Your task to perform on an android device: turn pop-ups on in chrome Image 0: 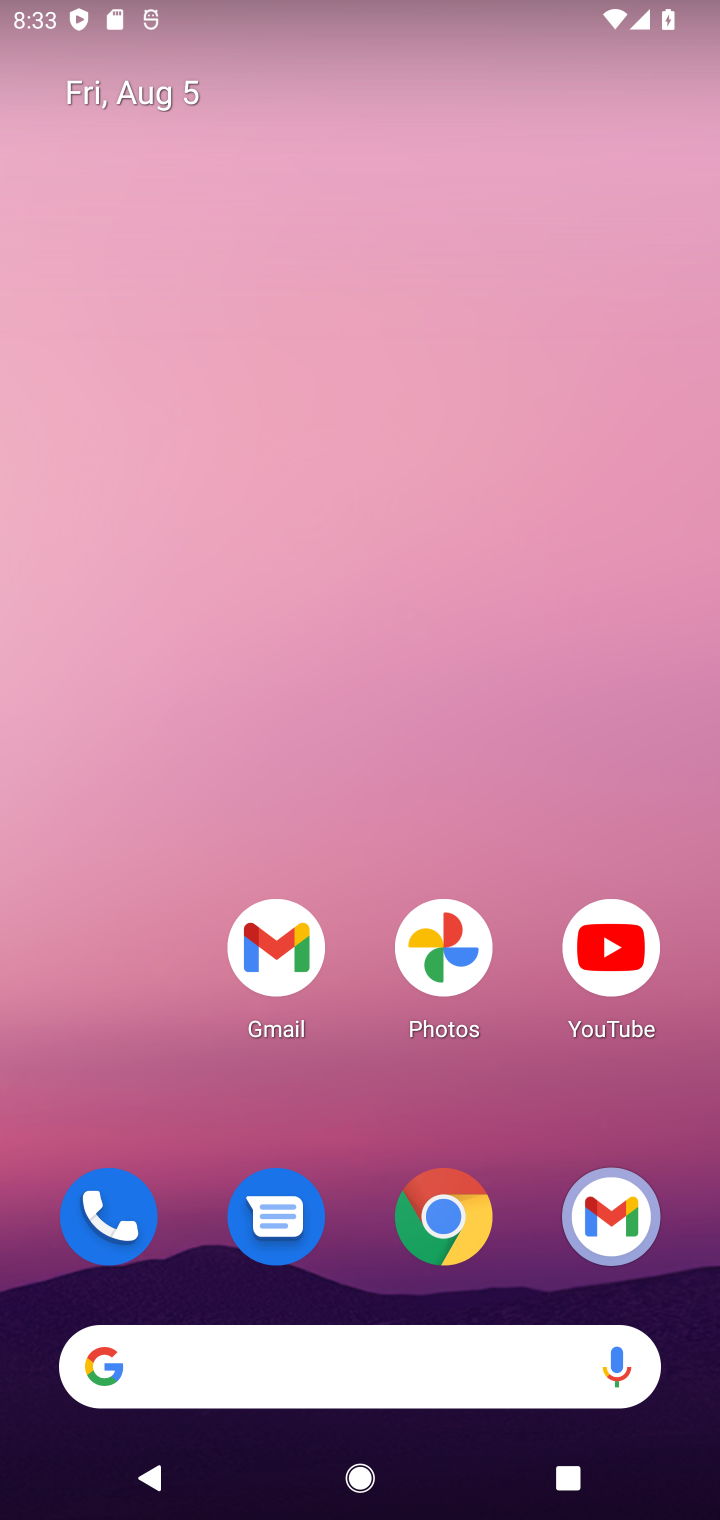
Step 0: click (457, 722)
Your task to perform on an android device: turn pop-ups on in chrome Image 1: 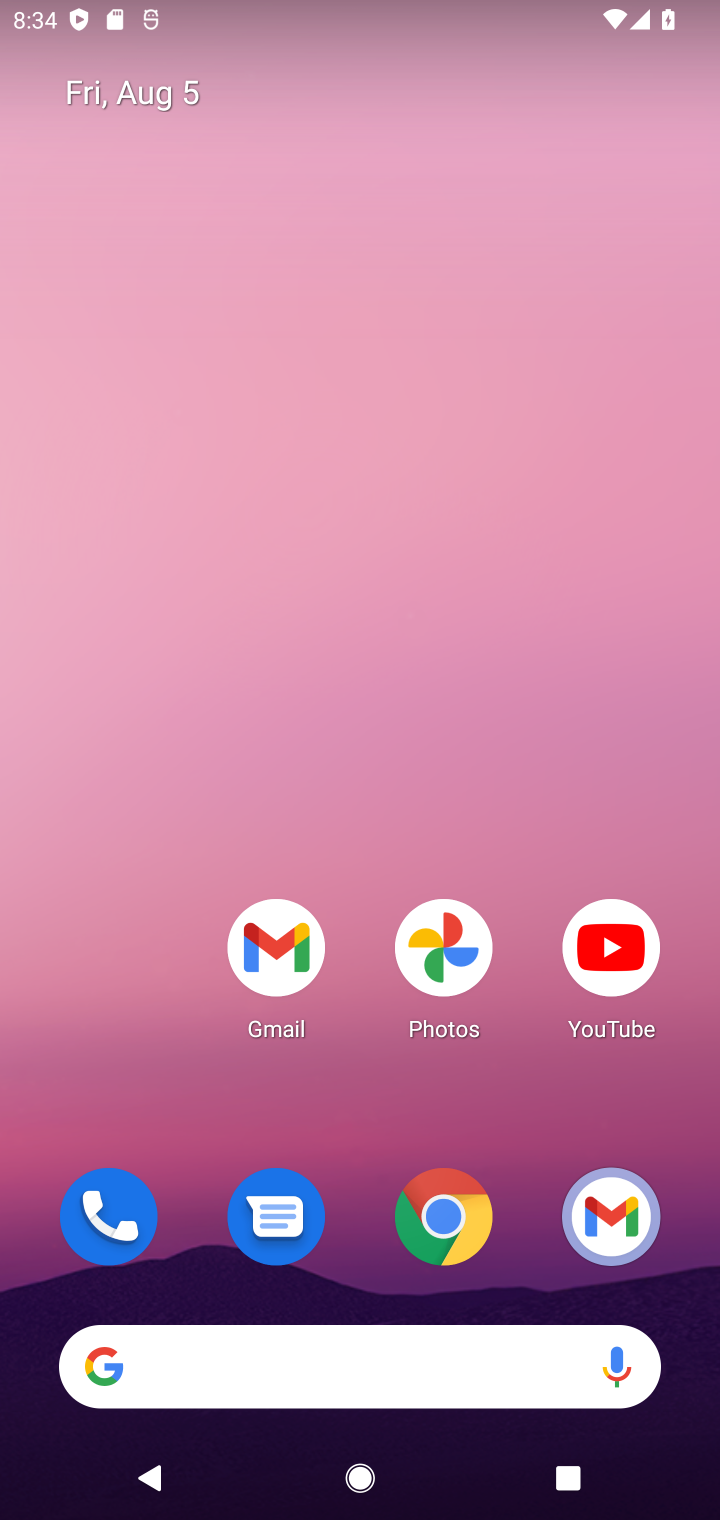
Step 1: click (437, 1208)
Your task to perform on an android device: turn pop-ups on in chrome Image 2: 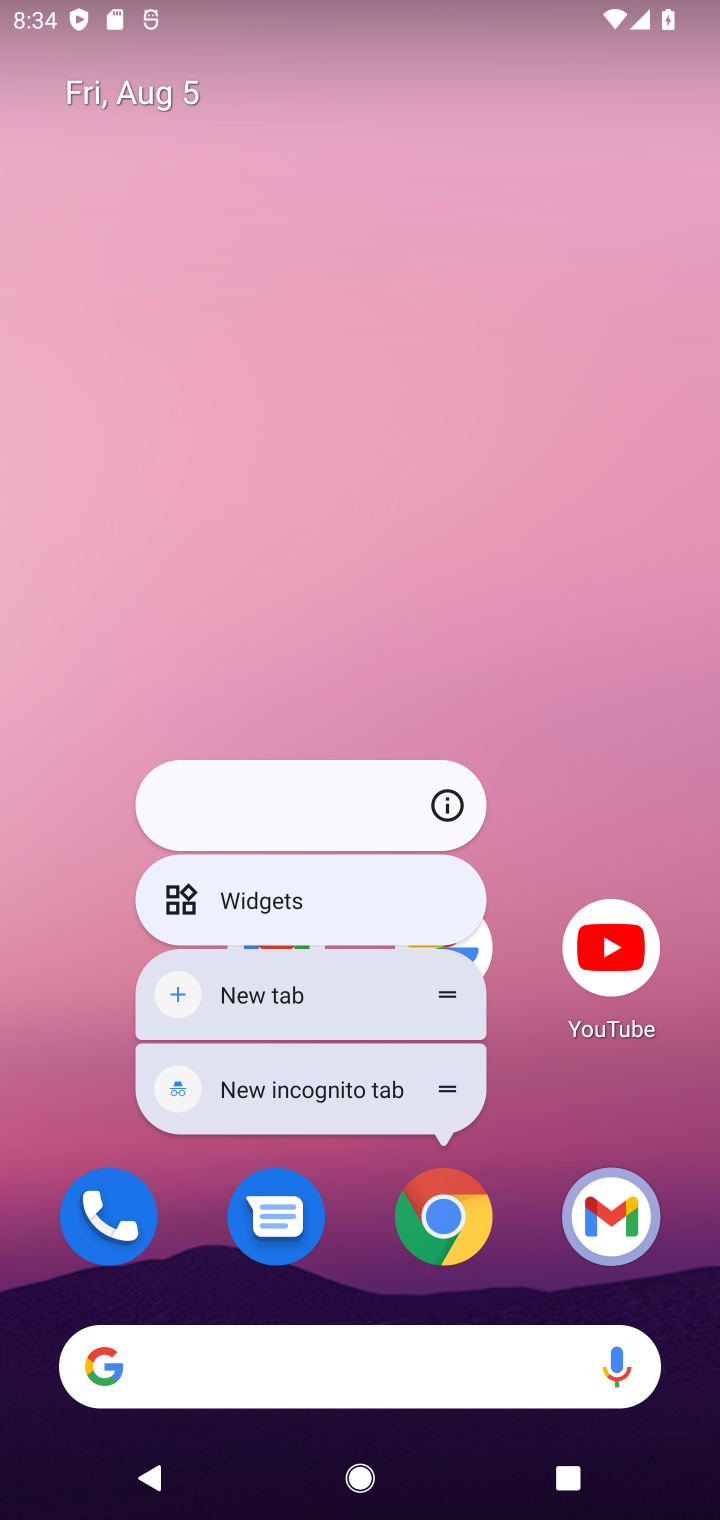
Step 2: click (447, 818)
Your task to perform on an android device: turn pop-ups on in chrome Image 3: 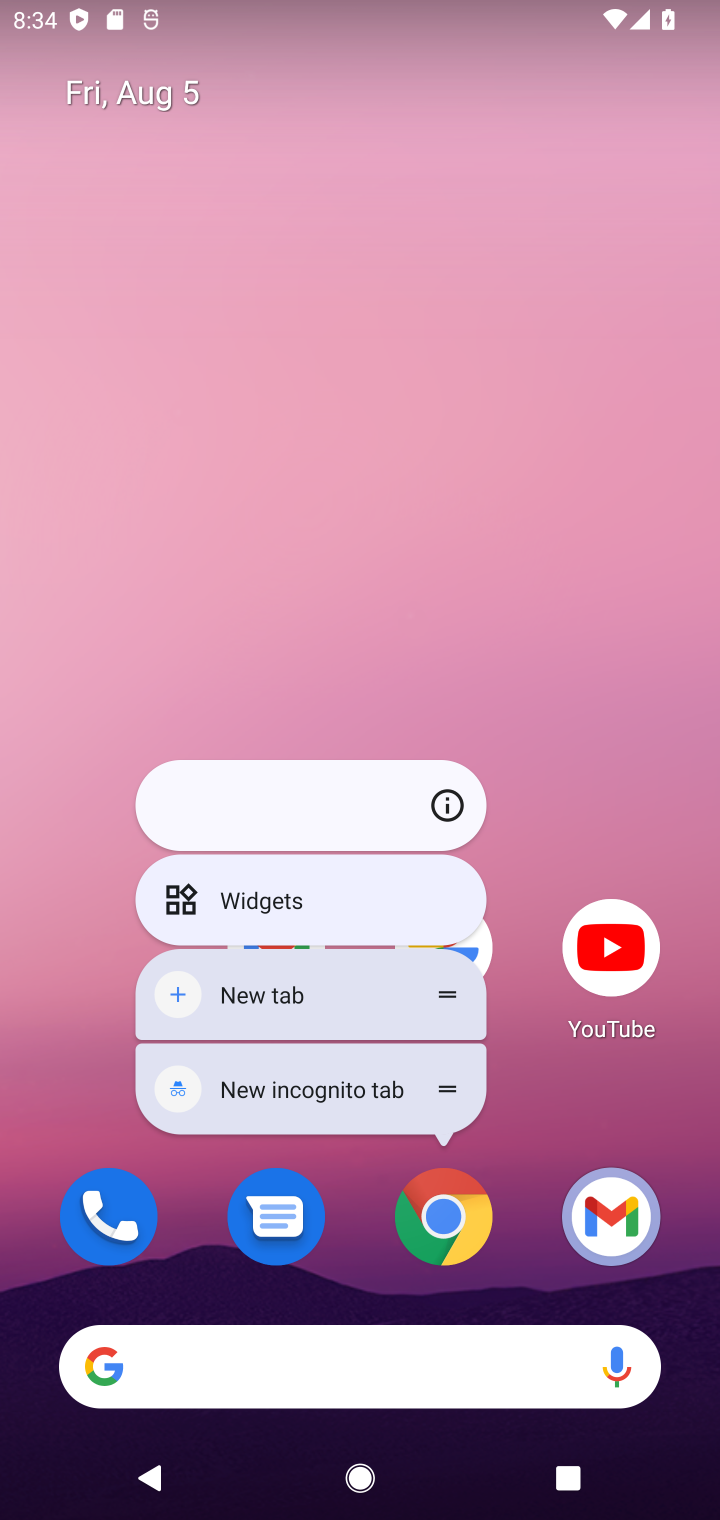
Step 3: click (455, 790)
Your task to perform on an android device: turn pop-ups on in chrome Image 4: 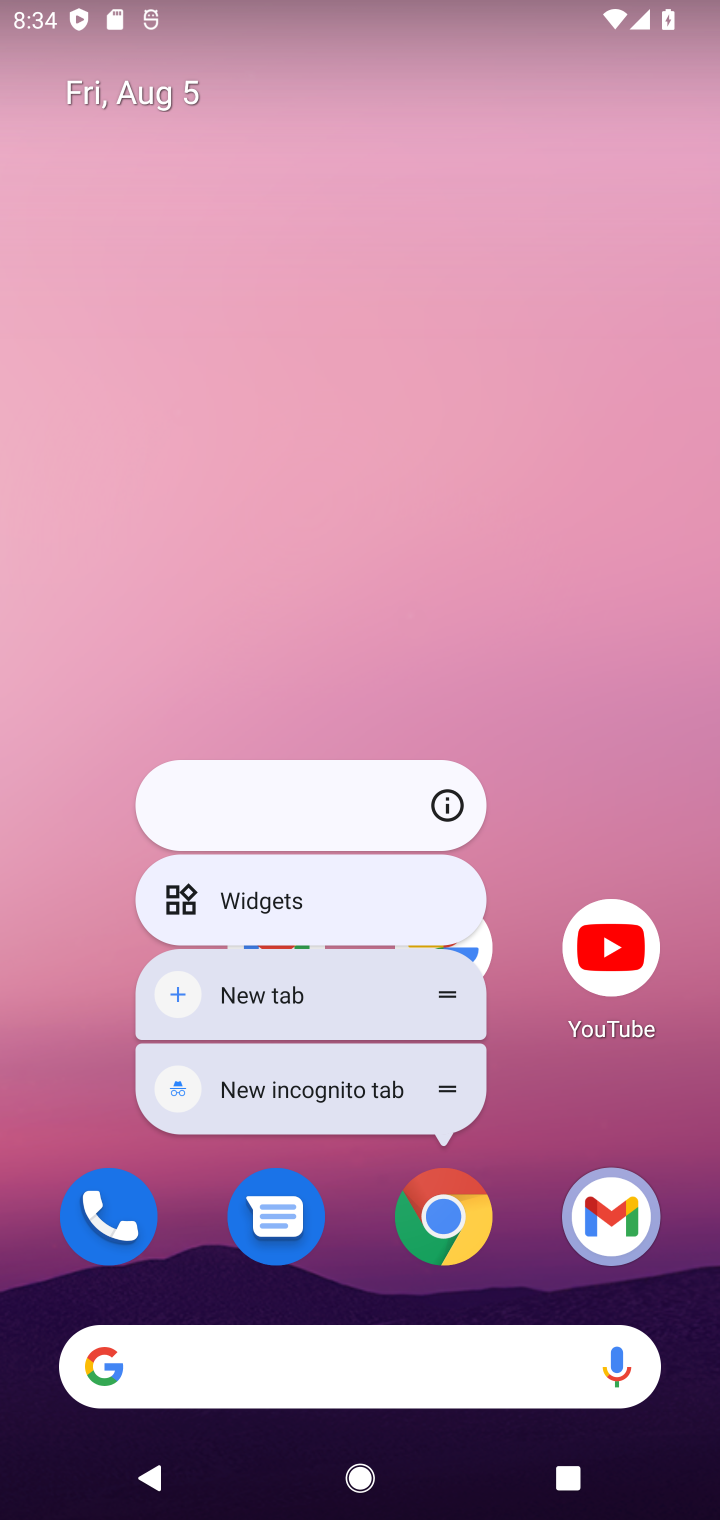
Step 4: click (424, 803)
Your task to perform on an android device: turn pop-ups on in chrome Image 5: 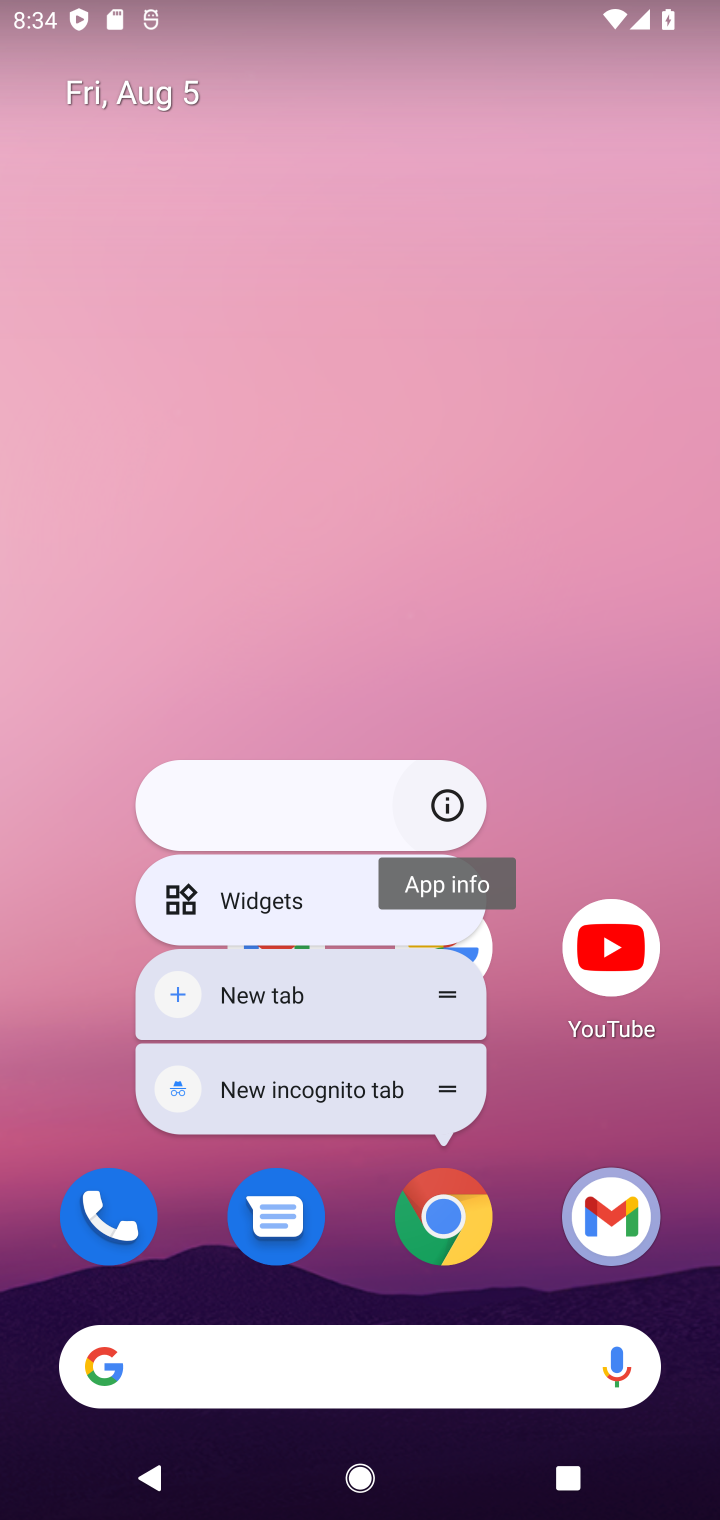
Step 5: click (431, 805)
Your task to perform on an android device: turn pop-ups on in chrome Image 6: 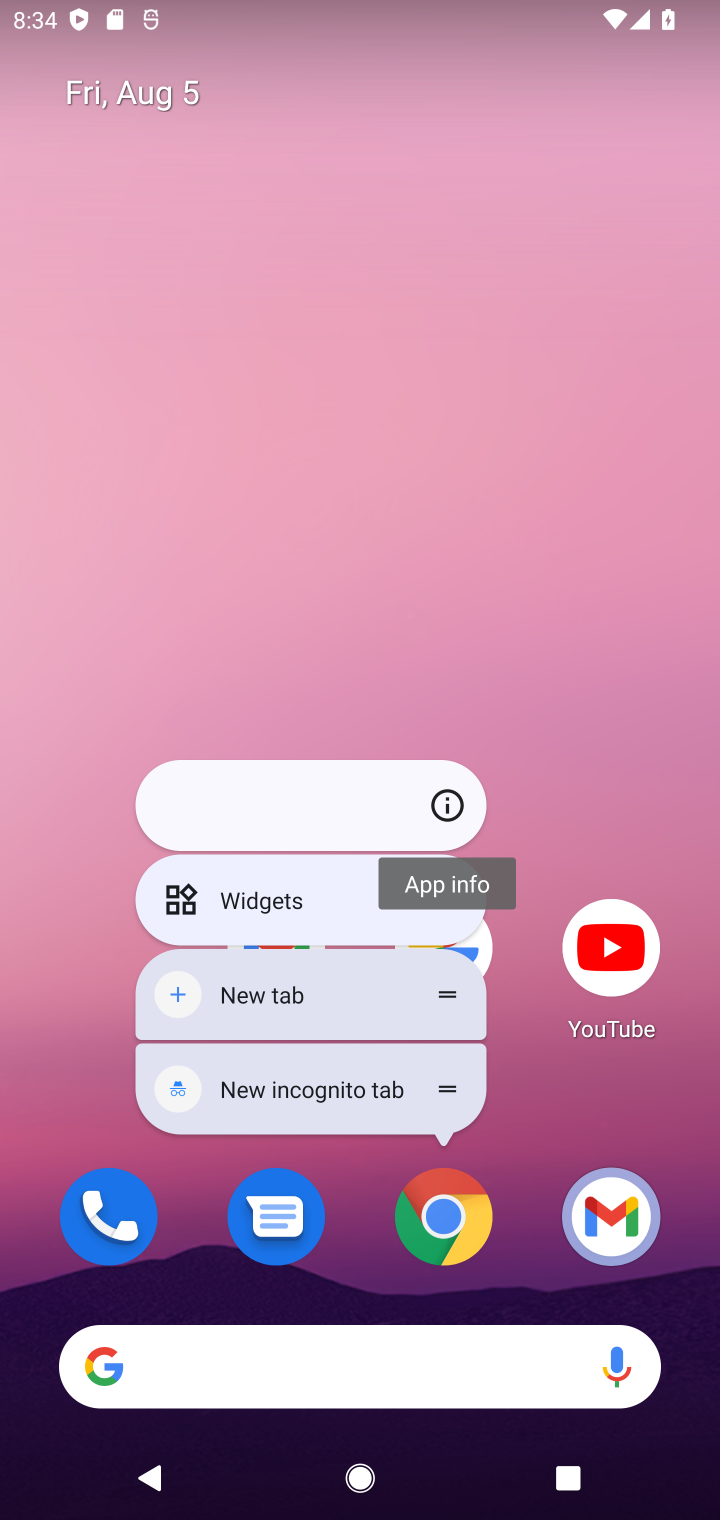
Step 6: click (431, 805)
Your task to perform on an android device: turn pop-ups on in chrome Image 7: 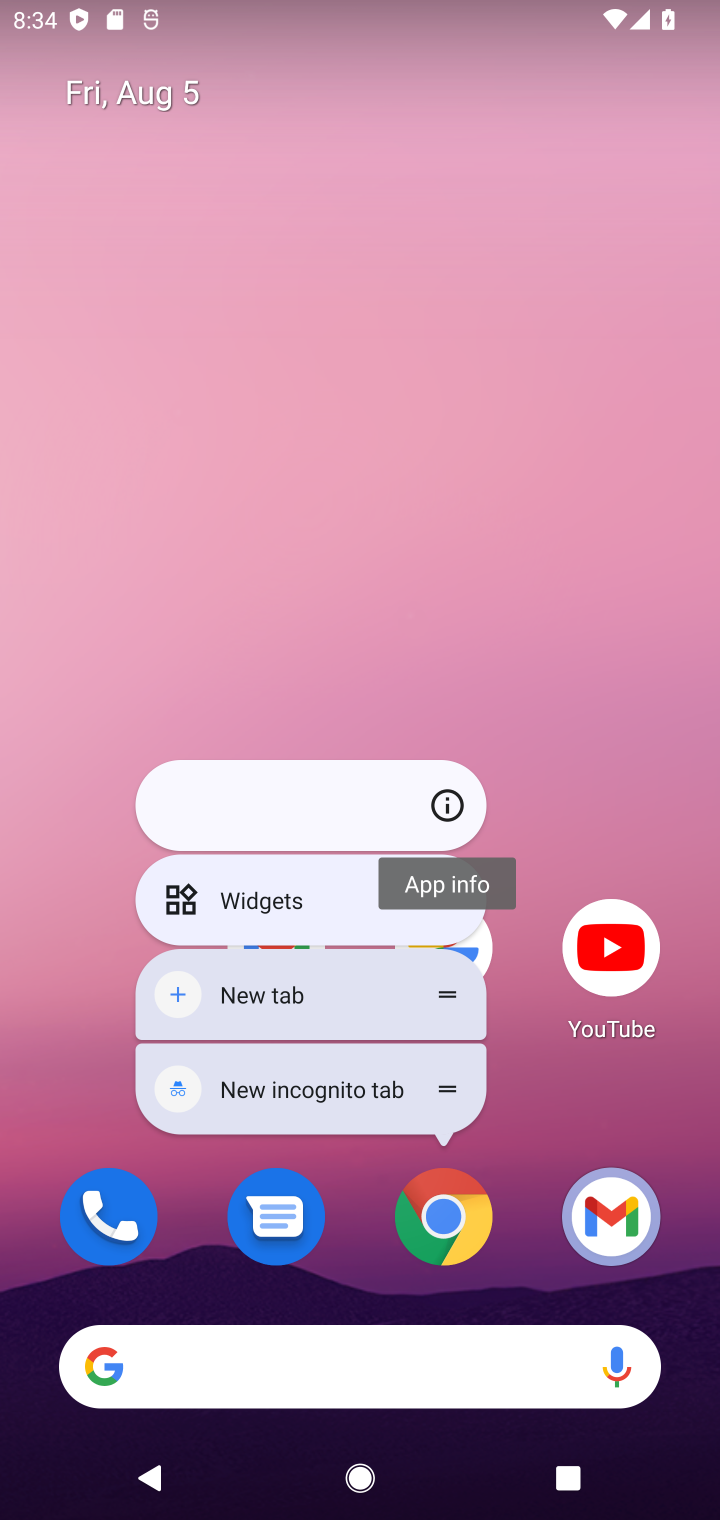
Step 7: click (433, 808)
Your task to perform on an android device: turn pop-ups on in chrome Image 8: 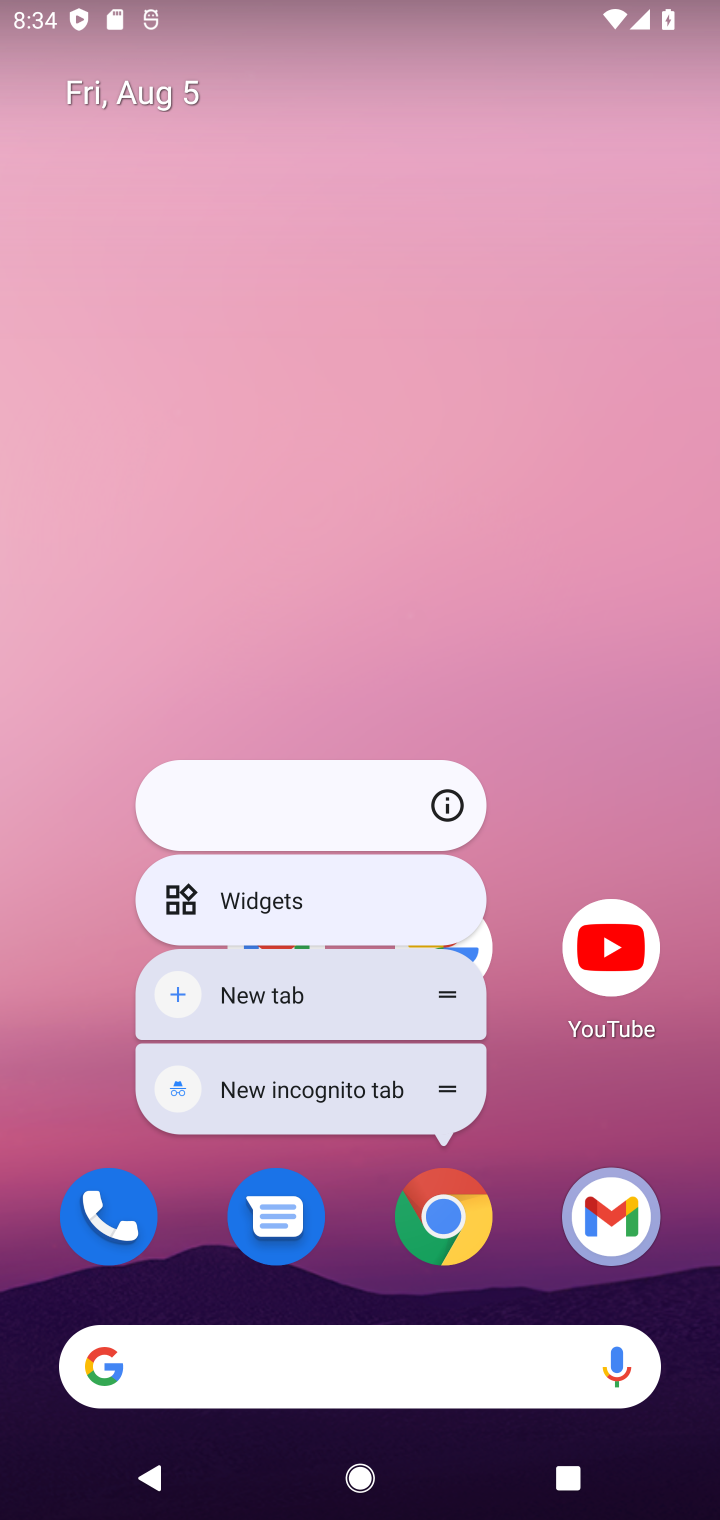
Step 8: click (433, 808)
Your task to perform on an android device: turn pop-ups on in chrome Image 9: 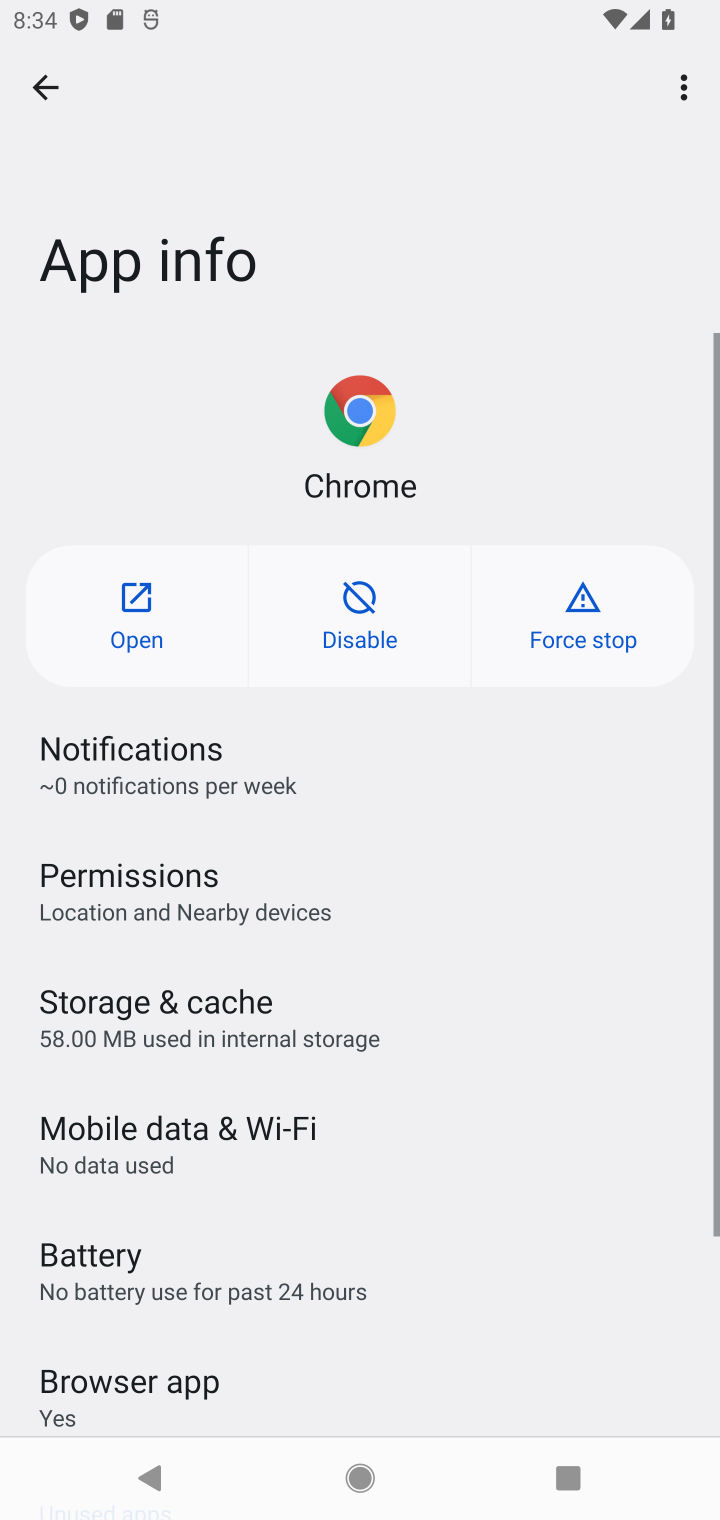
Step 9: click (121, 598)
Your task to perform on an android device: turn pop-ups on in chrome Image 10: 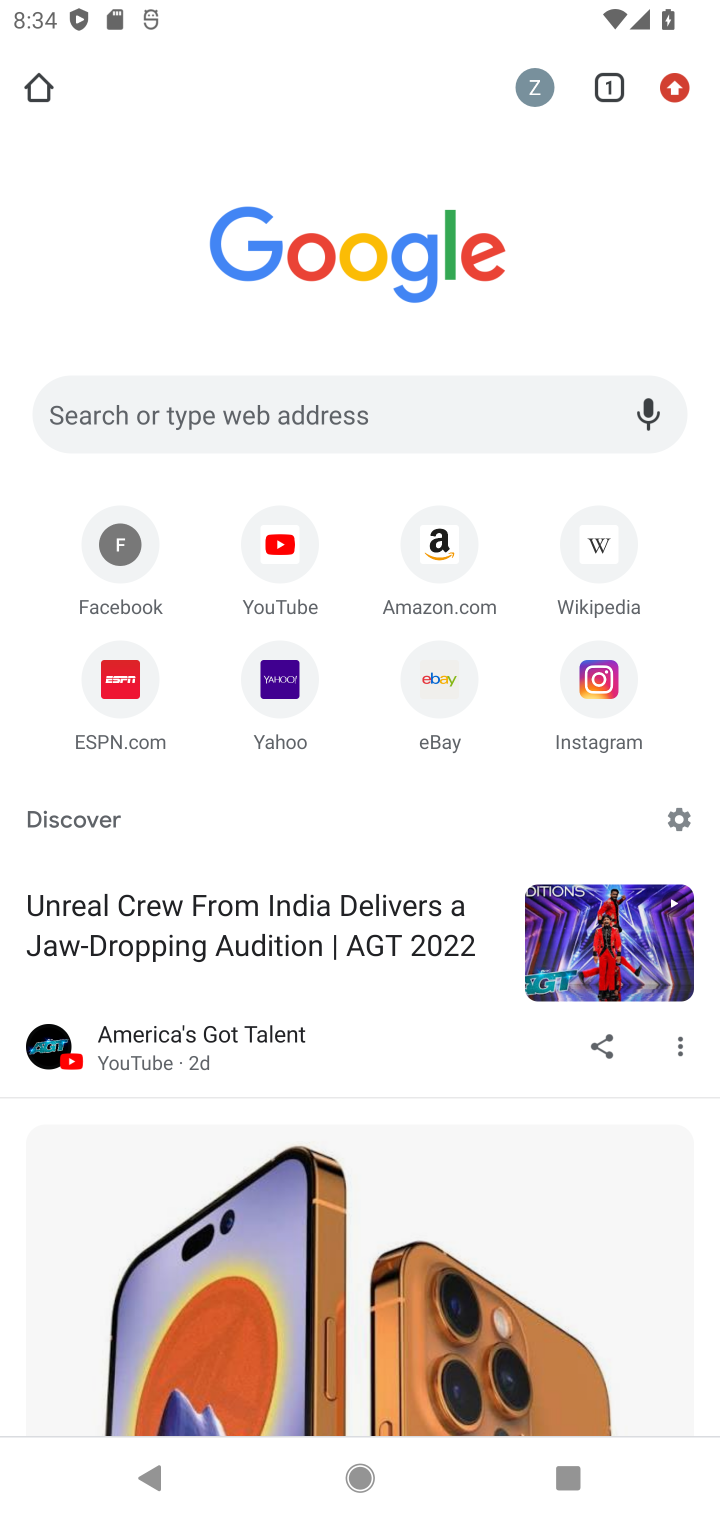
Step 10: drag from (349, 505) to (369, 254)
Your task to perform on an android device: turn pop-ups on in chrome Image 11: 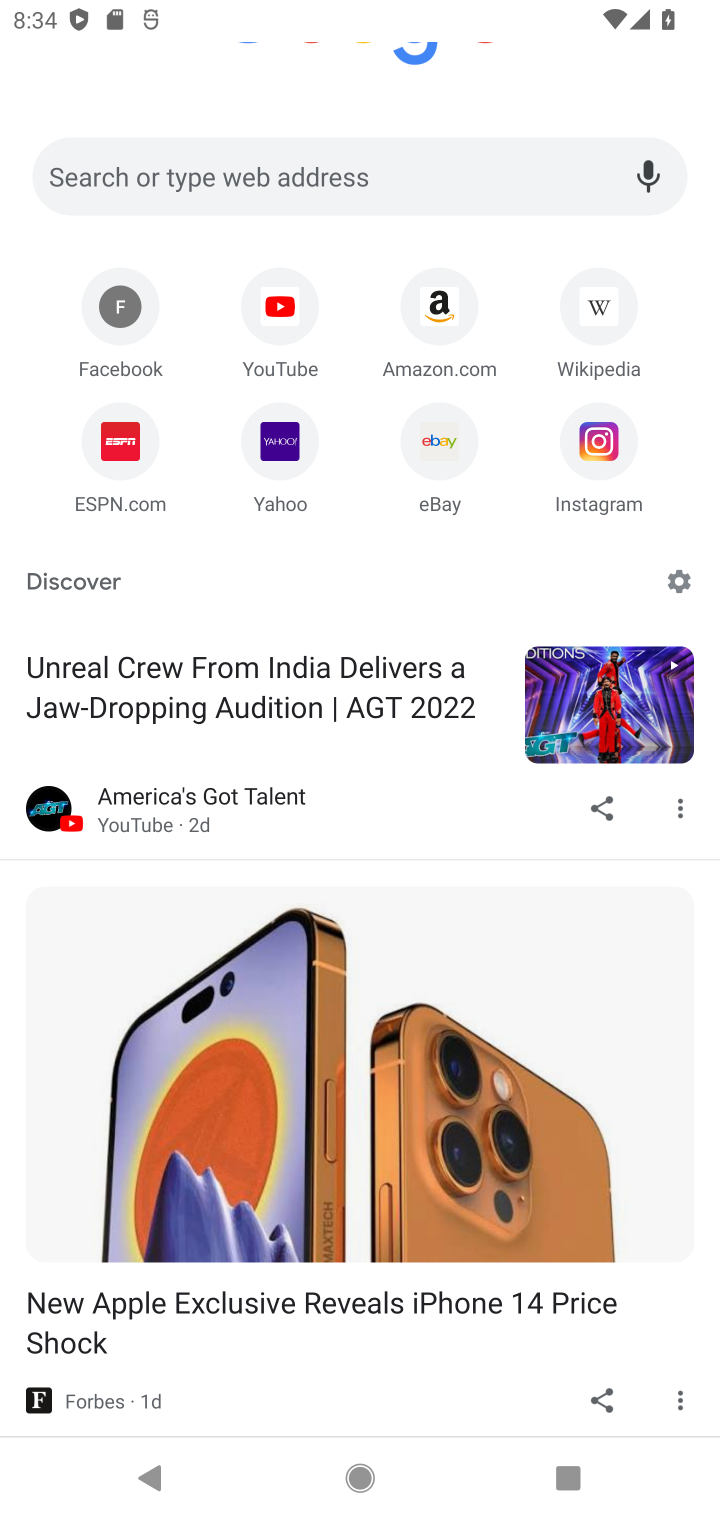
Step 11: drag from (354, 275) to (308, 811)
Your task to perform on an android device: turn pop-ups on in chrome Image 12: 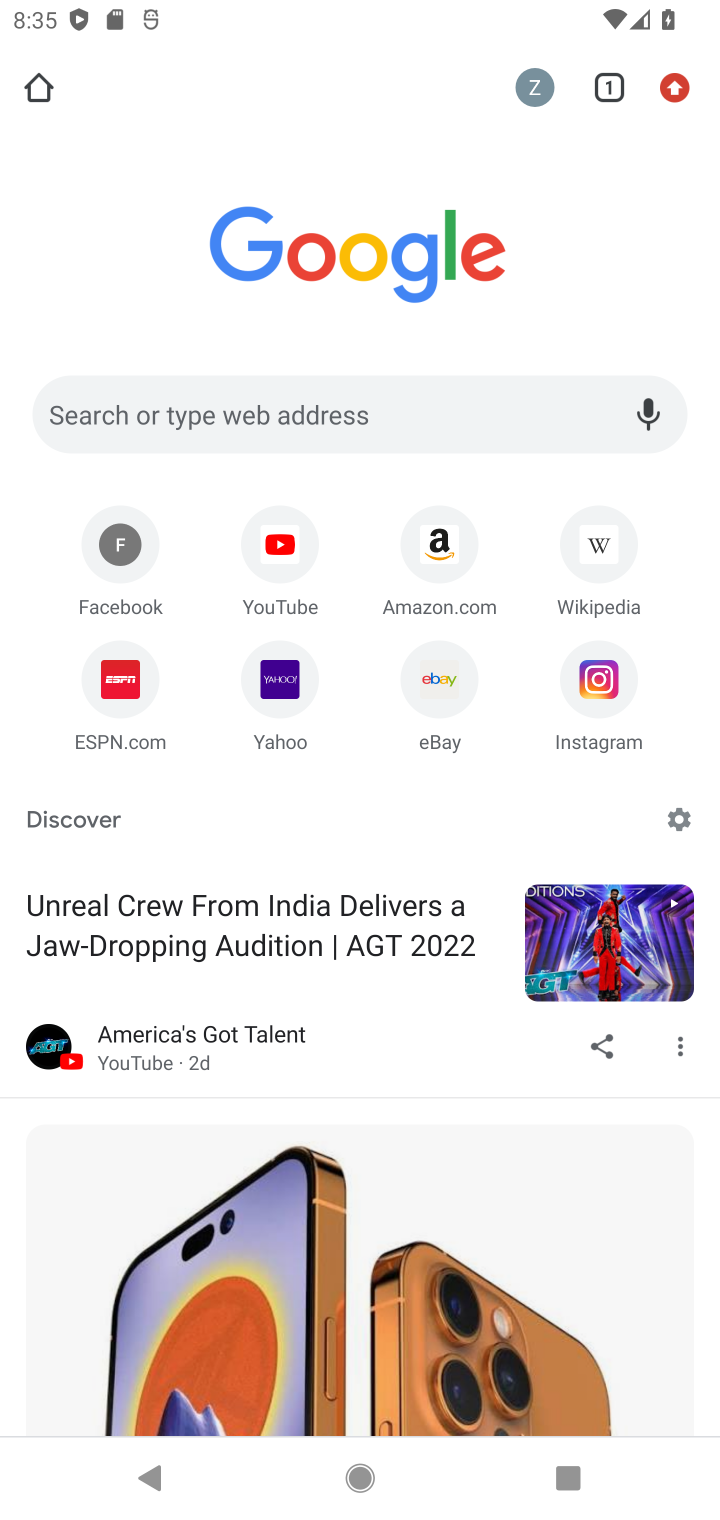
Step 12: drag from (680, 84) to (444, 872)
Your task to perform on an android device: turn pop-ups on in chrome Image 13: 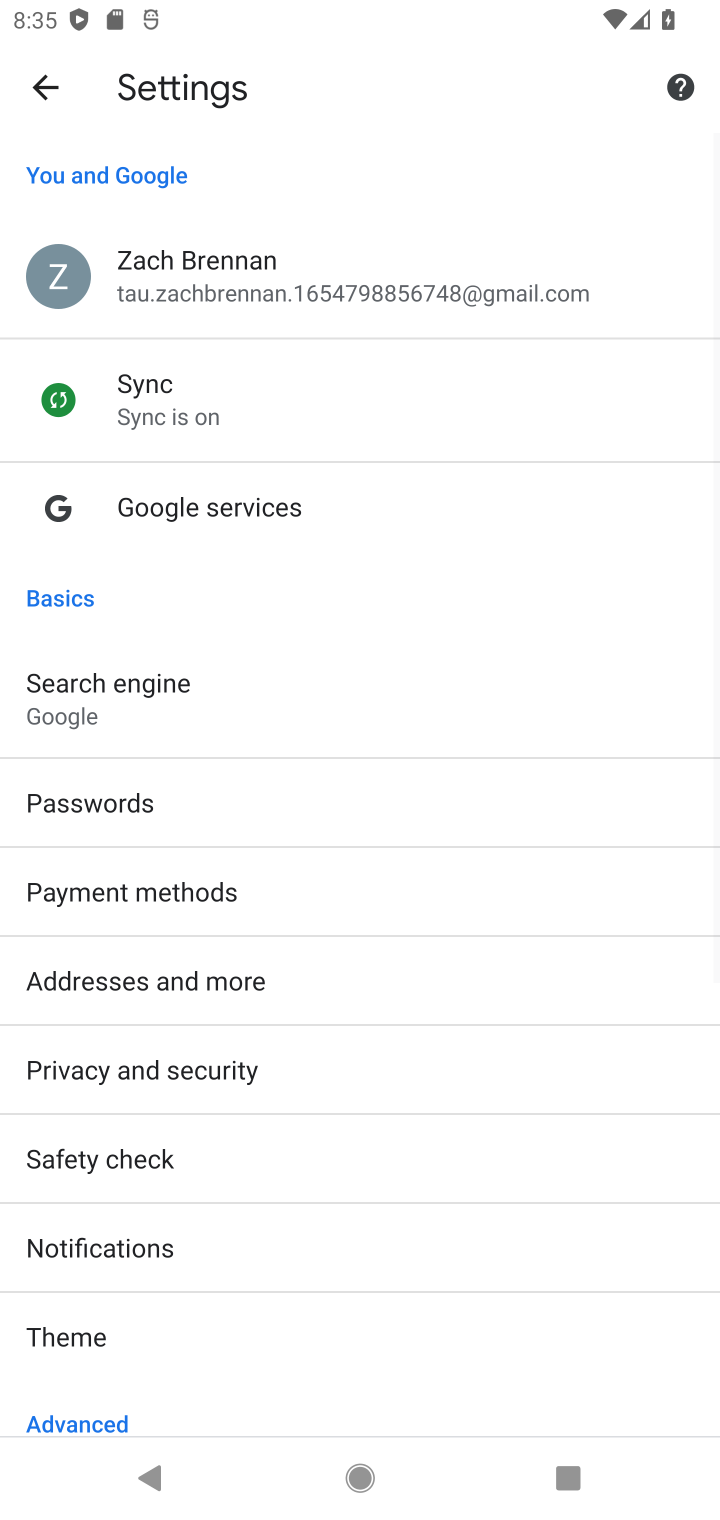
Step 13: drag from (245, 1340) to (294, 476)
Your task to perform on an android device: turn pop-ups on in chrome Image 14: 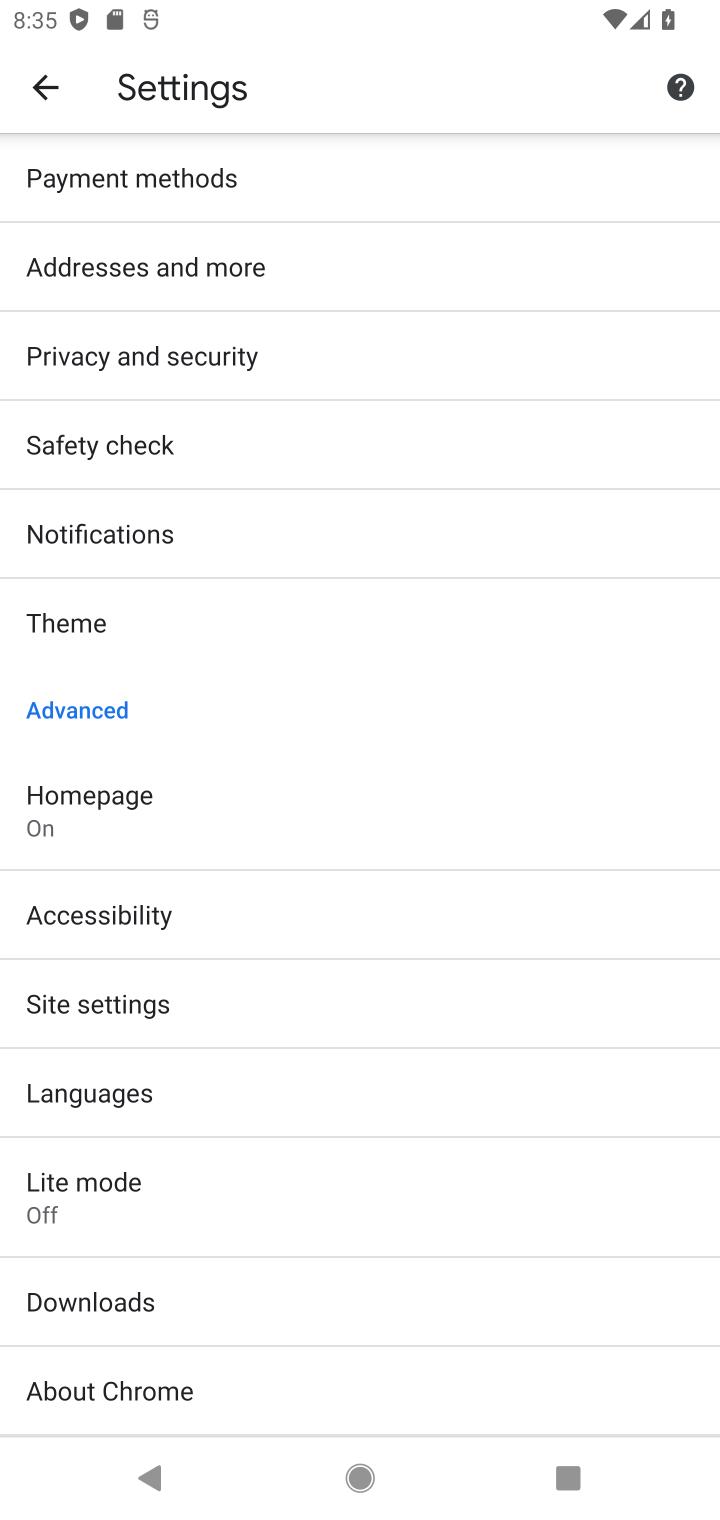
Step 14: click (205, 982)
Your task to perform on an android device: turn pop-ups on in chrome Image 15: 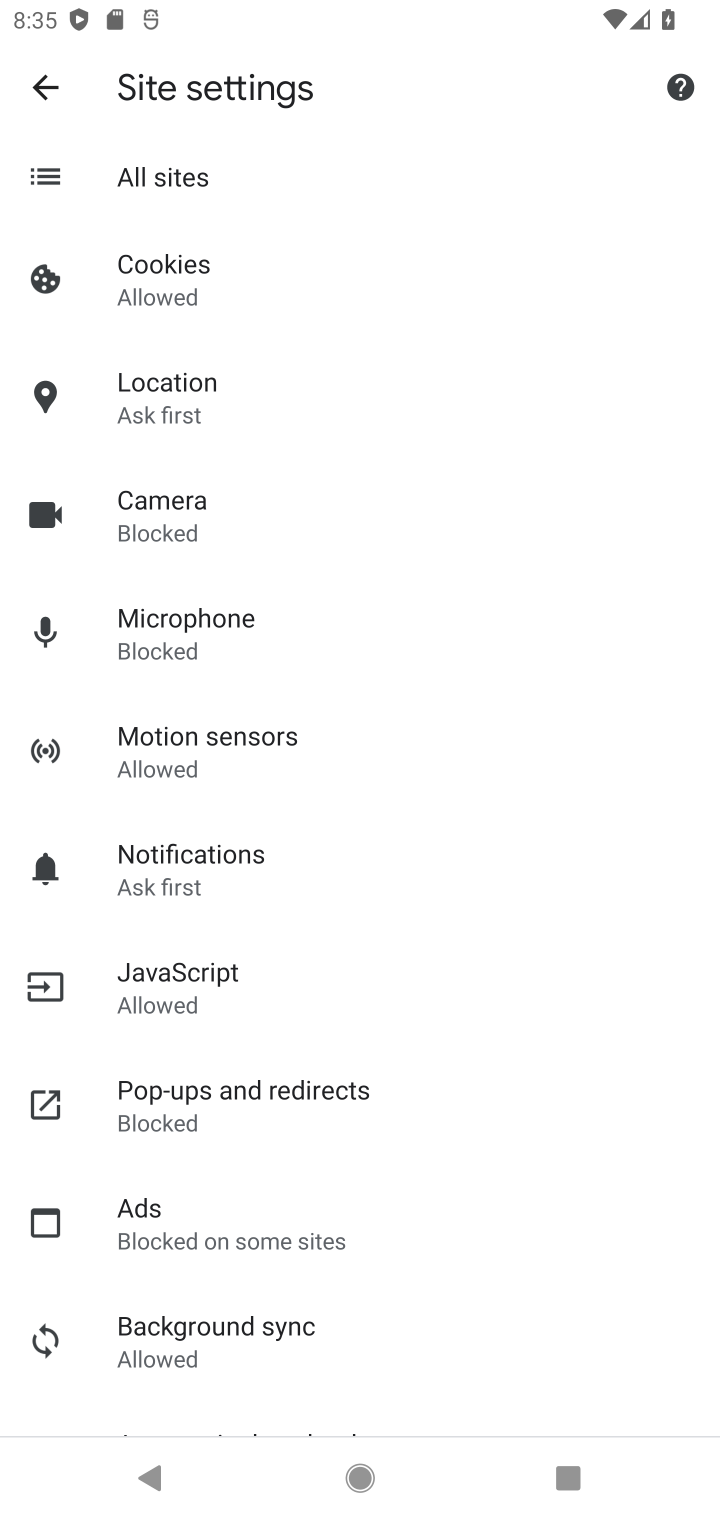
Step 15: click (335, 1107)
Your task to perform on an android device: turn pop-ups on in chrome Image 16: 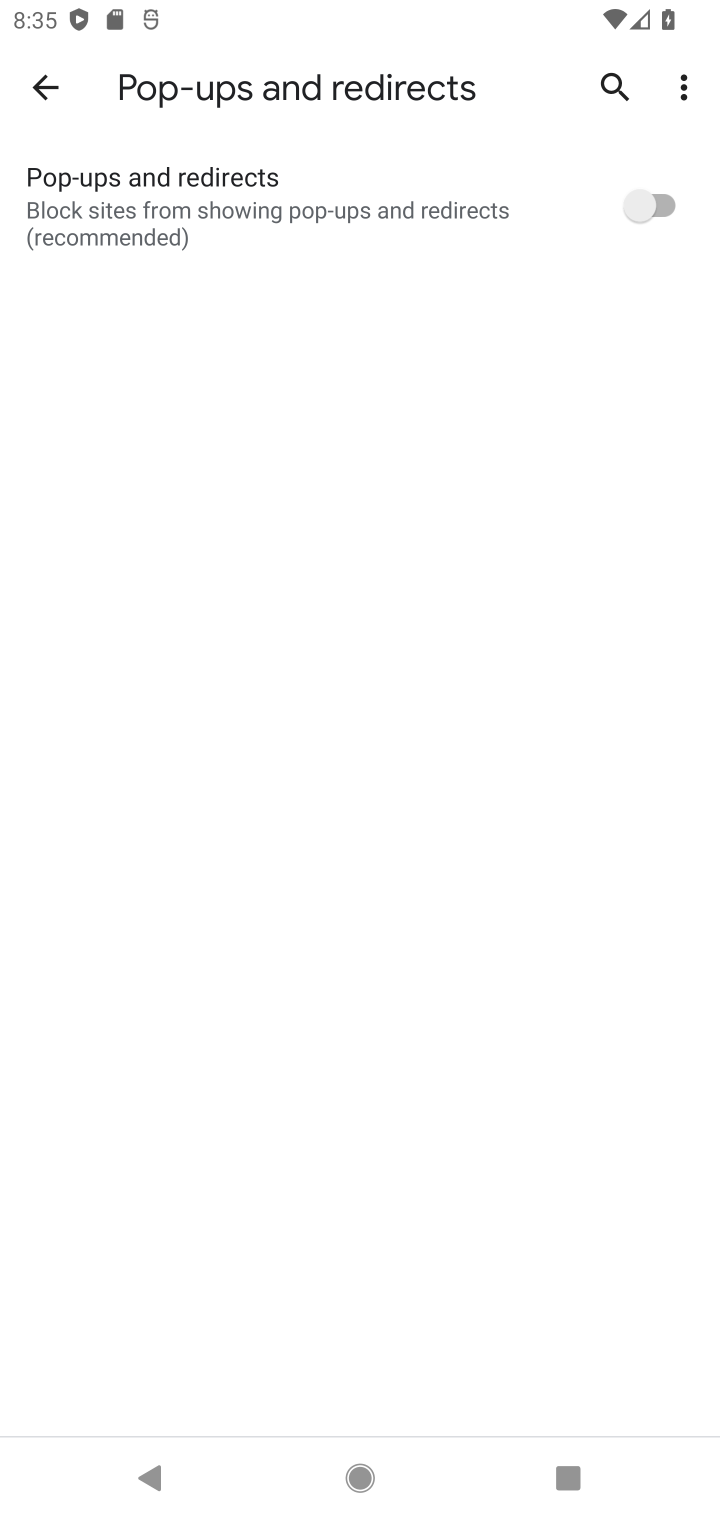
Step 16: click (605, 218)
Your task to perform on an android device: turn pop-ups on in chrome Image 17: 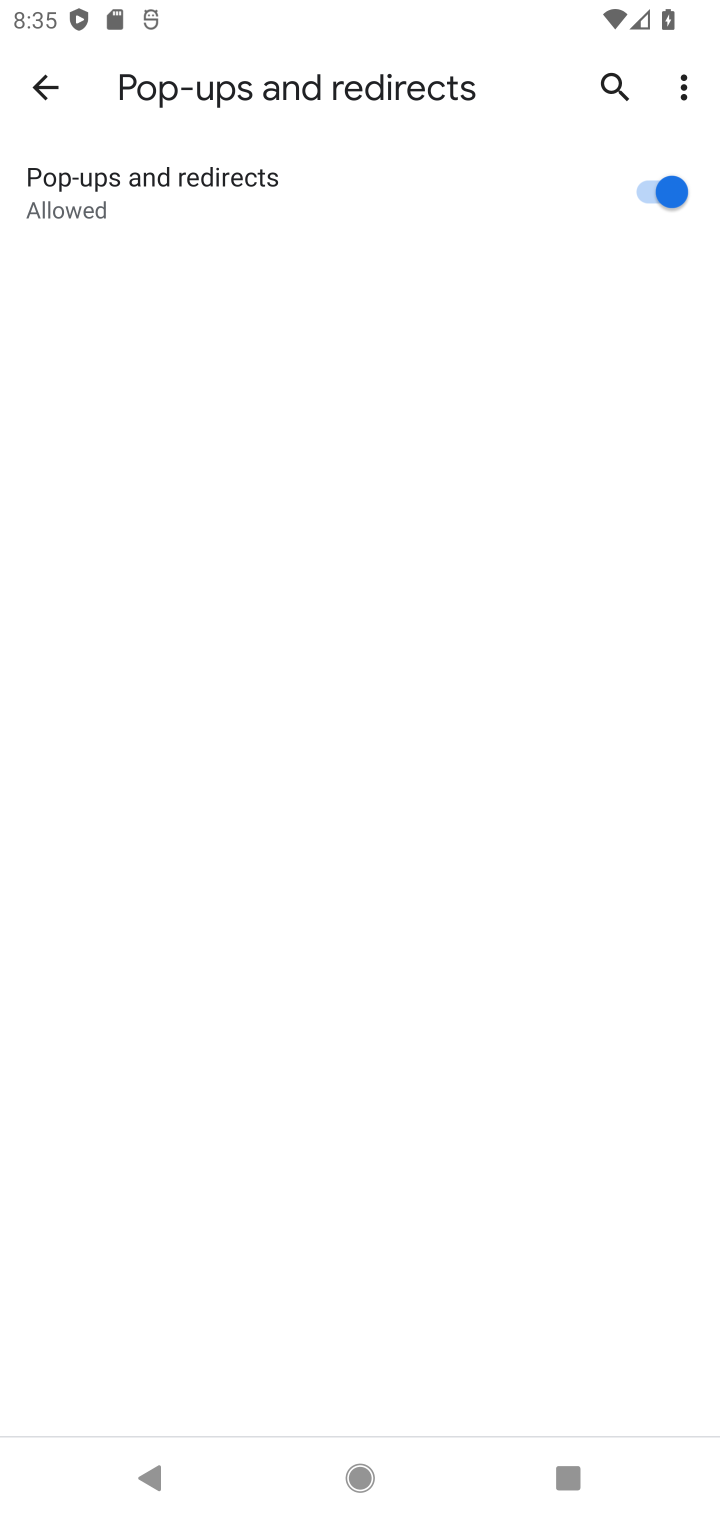
Step 17: task complete